Your task to perform on an android device: change the clock display to show seconds Image 0: 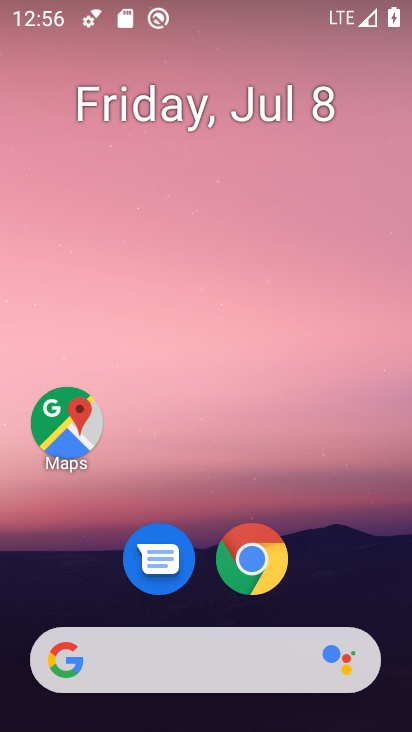
Step 0: drag from (200, 617) to (408, 38)
Your task to perform on an android device: change the clock display to show seconds Image 1: 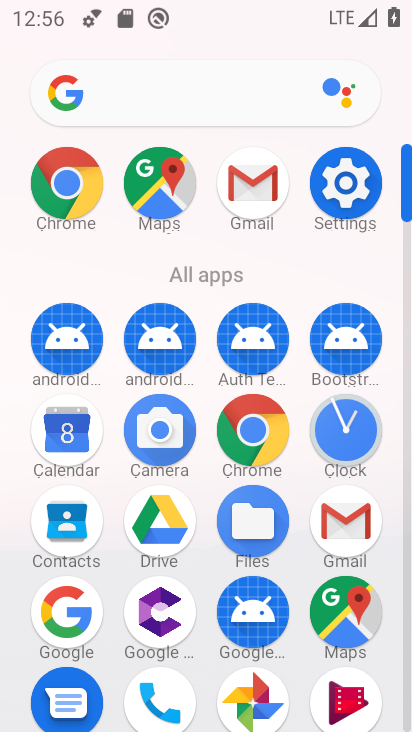
Step 1: click (342, 451)
Your task to perform on an android device: change the clock display to show seconds Image 2: 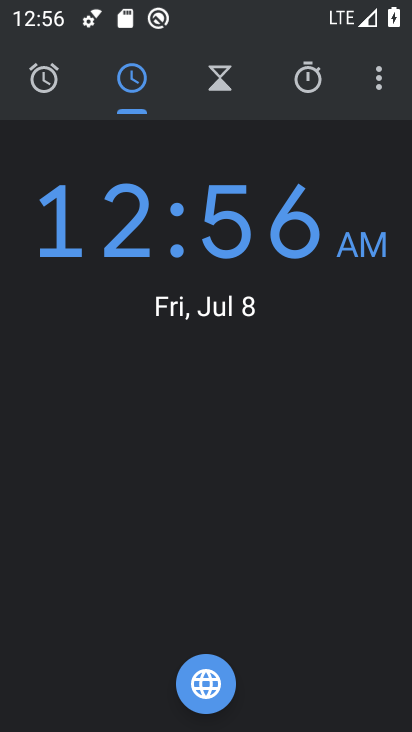
Step 2: click (379, 72)
Your task to perform on an android device: change the clock display to show seconds Image 3: 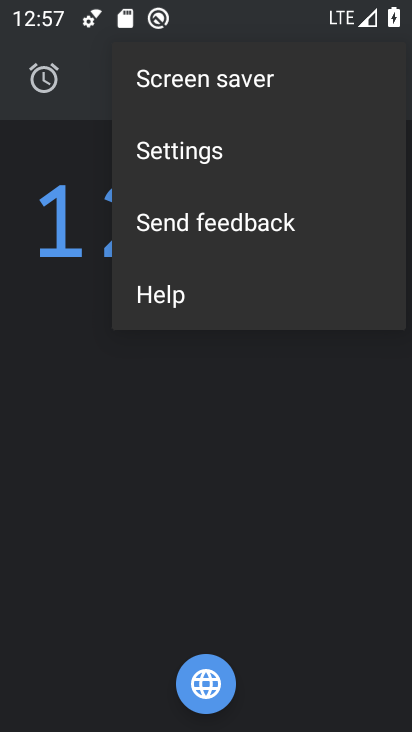
Step 3: click (221, 164)
Your task to perform on an android device: change the clock display to show seconds Image 4: 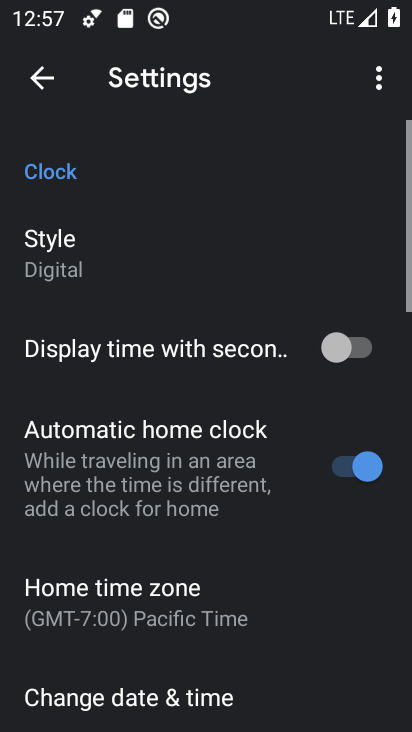
Step 4: click (327, 350)
Your task to perform on an android device: change the clock display to show seconds Image 5: 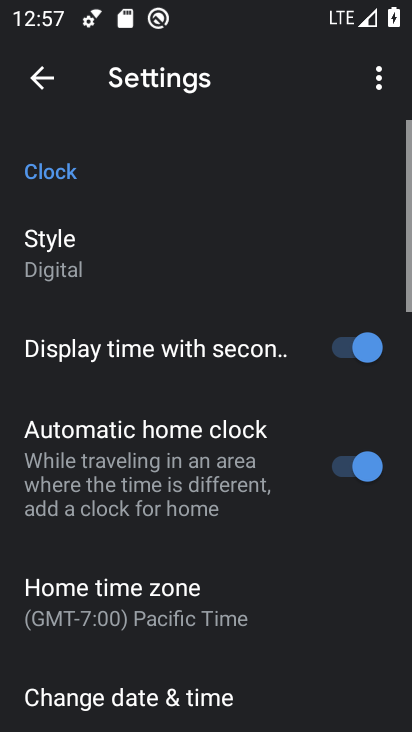
Step 5: task complete